Your task to perform on an android device: open the mobile data screen to see how much data has been used Image 0: 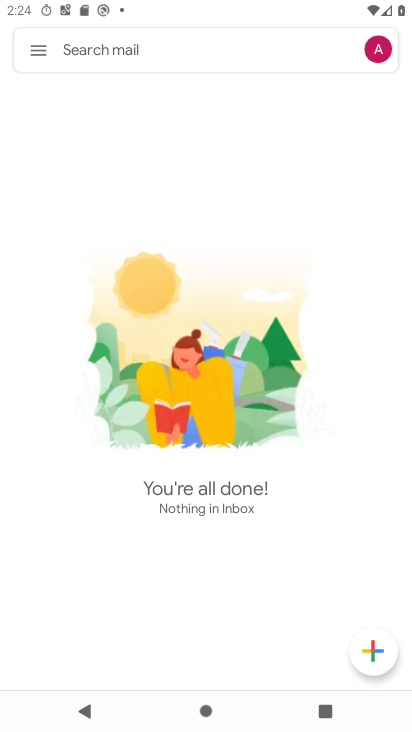
Step 0: press home button
Your task to perform on an android device: open the mobile data screen to see how much data has been used Image 1: 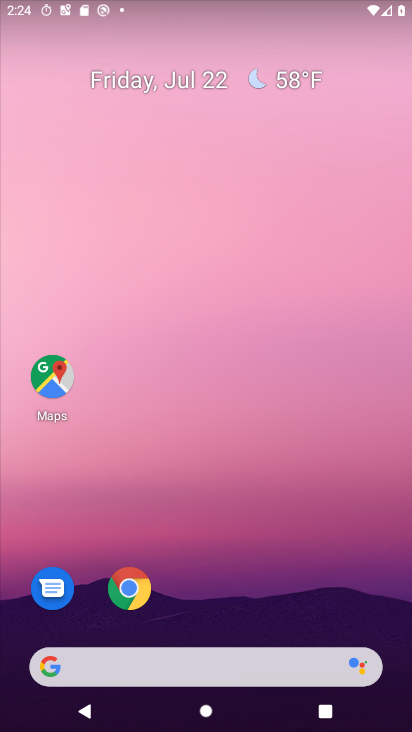
Step 1: drag from (259, 5) to (283, 653)
Your task to perform on an android device: open the mobile data screen to see how much data has been used Image 2: 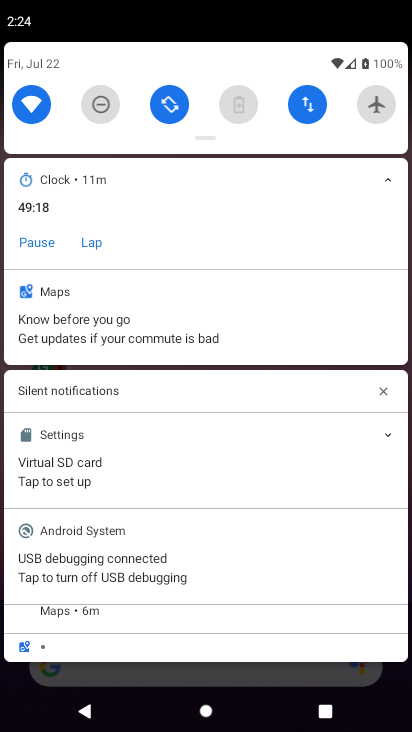
Step 2: click (318, 111)
Your task to perform on an android device: open the mobile data screen to see how much data has been used Image 3: 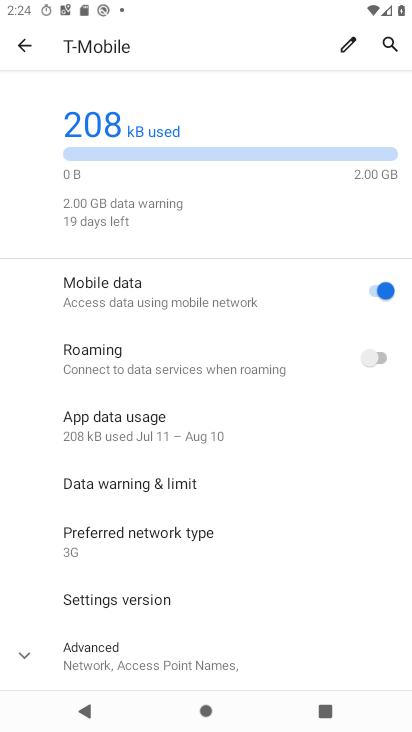
Step 3: task complete